Your task to perform on an android device: open chrome and create a bookmark for the current page Image 0: 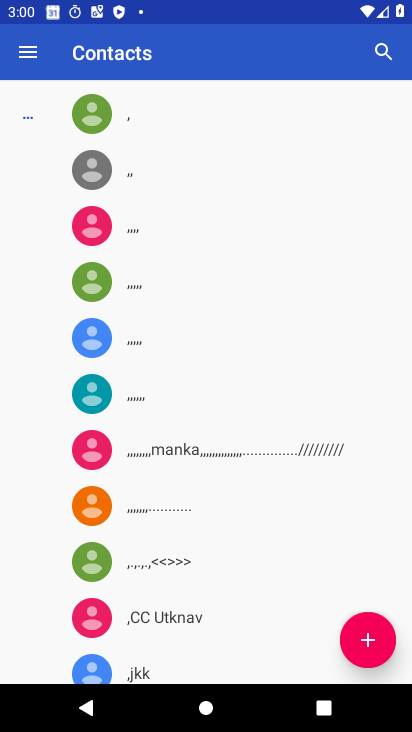
Step 0: drag from (259, 576) to (402, 280)
Your task to perform on an android device: open chrome and create a bookmark for the current page Image 1: 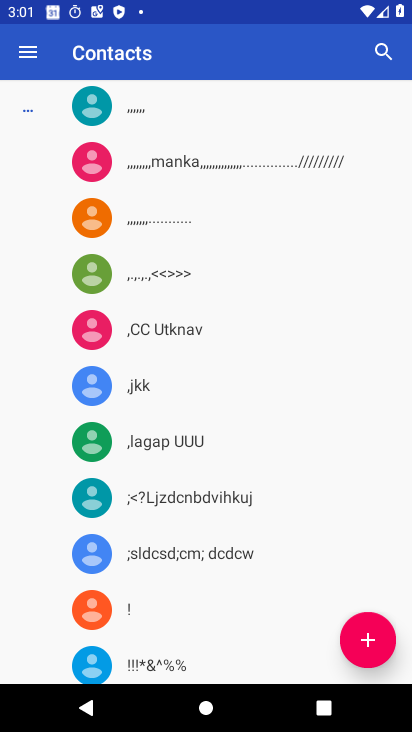
Step 1: press home button
Your task to perform on an android device: open chrome and create a bookmark for the current page Image 2: 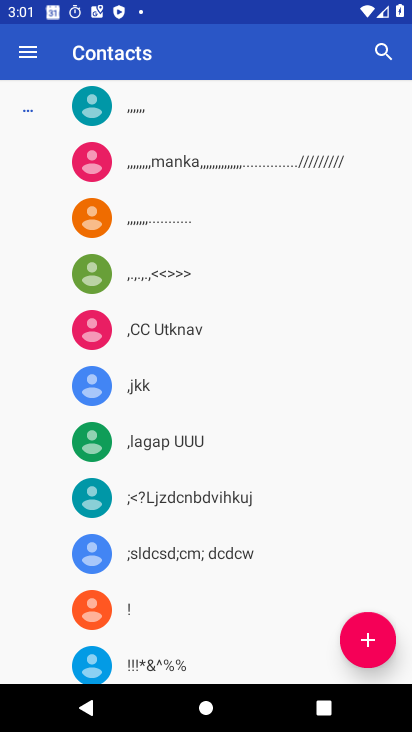
Step 2: click (387, 444)
Your task to perform on an android device: open chrome and create a bookmark for the current page Image 3: 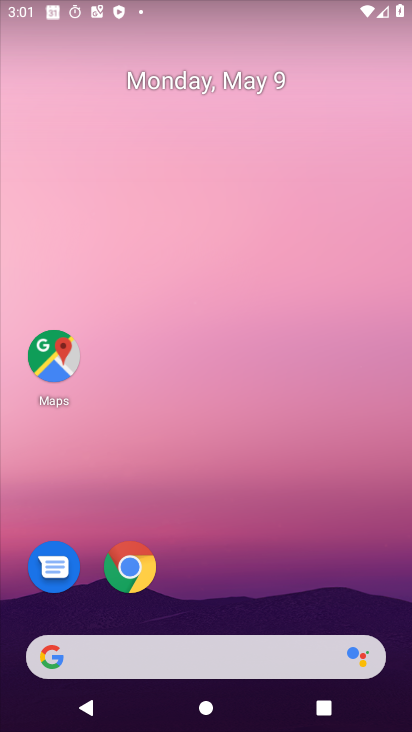
Step 3: click (135, 556)
Your task to perform on an android device: open chrome and create a bookmark for the current page Image 4: 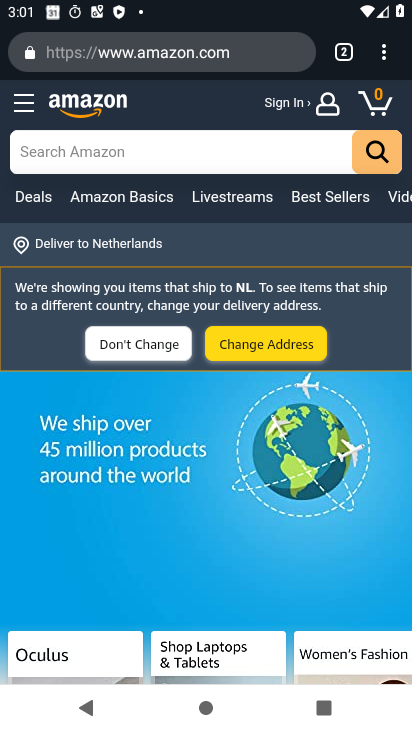
Step 4: click (386, 45)
Your task to perform on an android device: open chrome and create a bookmark for the current page Image 5: 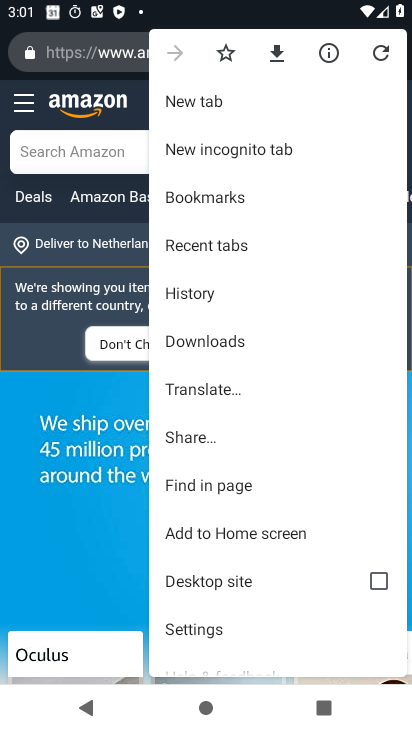
Step 5: click (220, 55)
Your task to perform on an android device: open chrome and create a bookmark for the current page Image 6: 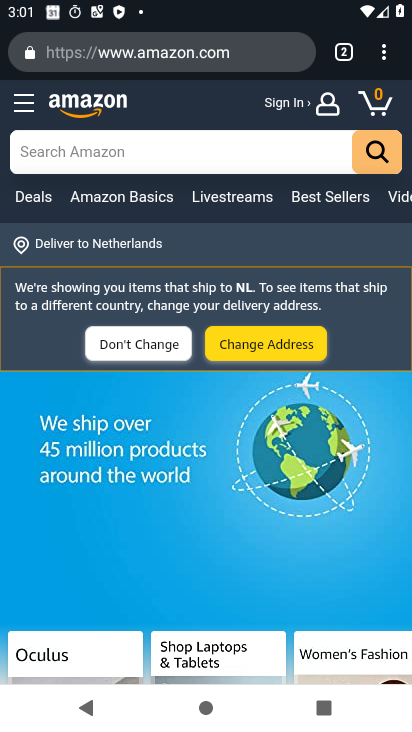
Step 6: task complete